Your task to perform on an android device: see creations saved in the google photos Image 0: 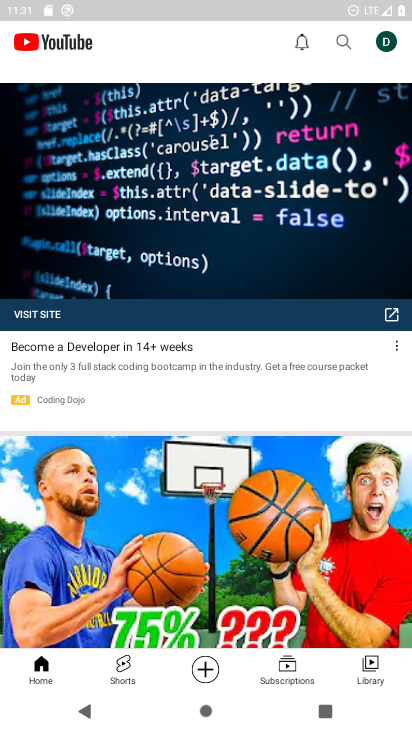
Step 0: press home button
Your task to perform on an android device: see creations saved in the google photos Image 1: 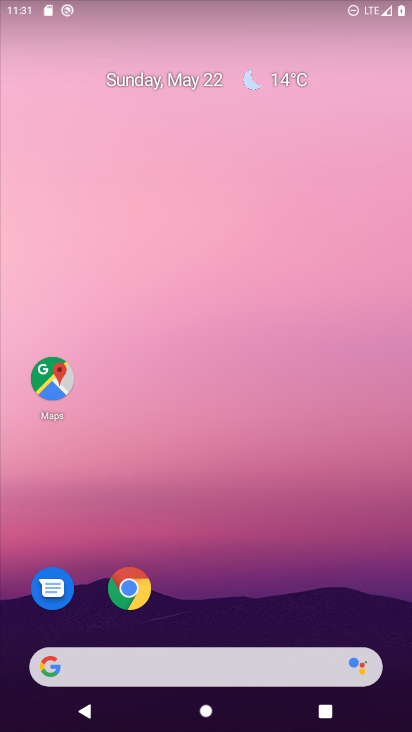
Step 1: drag from (252, 615) to (251, 212)
Your task to perform on an android device: see creations saved in the google photos Image 2: 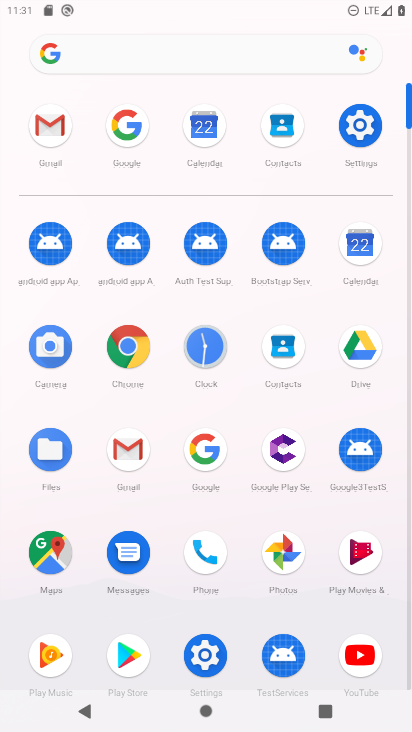
Step 2: click (271, 549)
Your task to perform on an android device: see creations saved in the google photos Image 3: 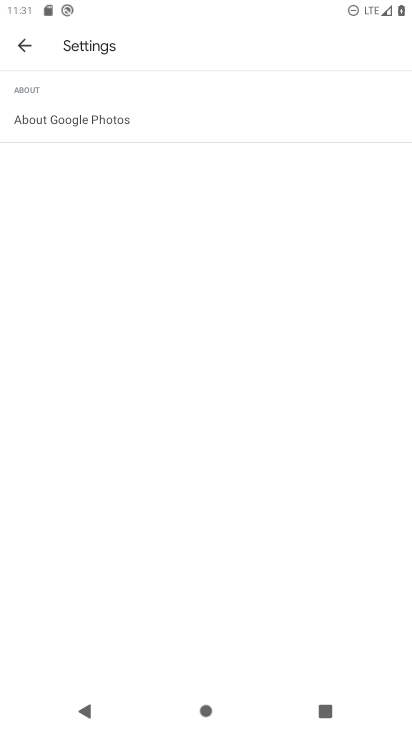
Step 3: click (19, 52)
Your task to perform on an android device: see creations saved in the google photos Image 4: 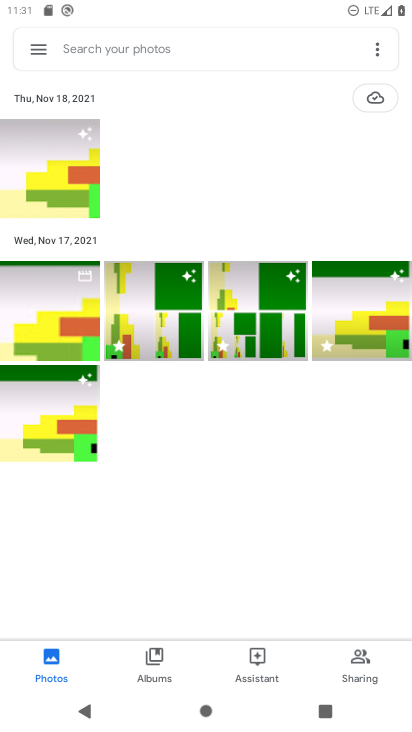
Step 4: click (159, 48)
Your task to perform on an android device: see creations saved in the google photos Image 5: 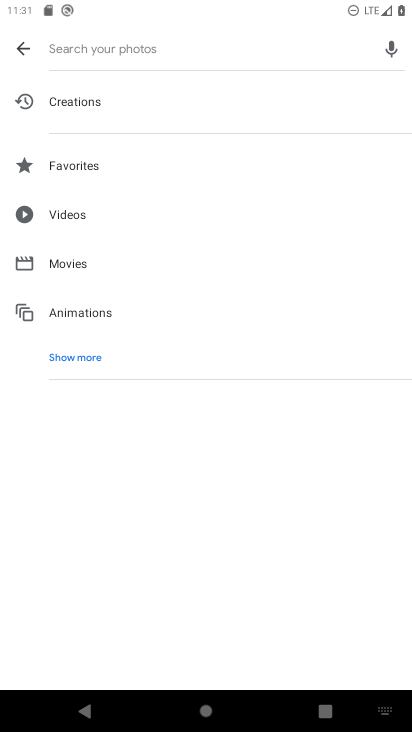
Step 5: click (144, 96)
Your task to perform on an android device: see creations saved in the google photos Image 6: 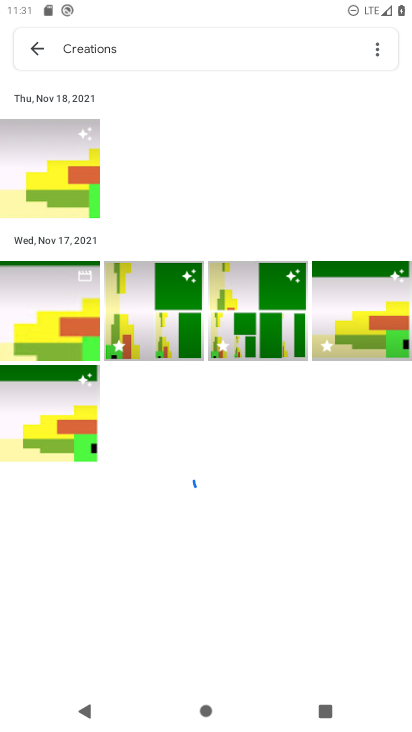
Step 6: task complete